Your task to perform on an android device: Open Wikipedia Image 0: 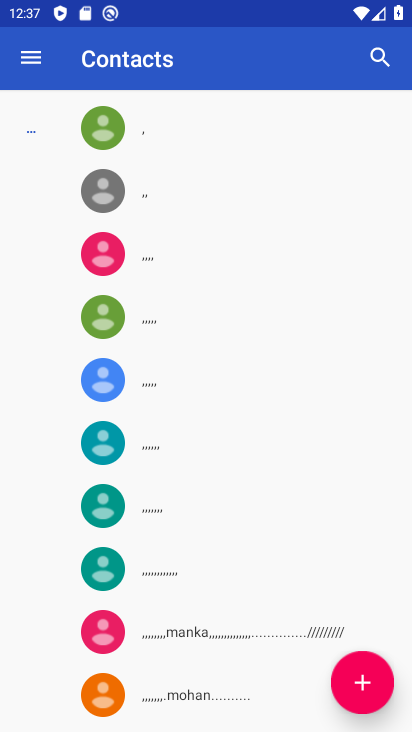
Step 0: press home button
Your task to perform on an android device: Open Wikipedia Image 1: 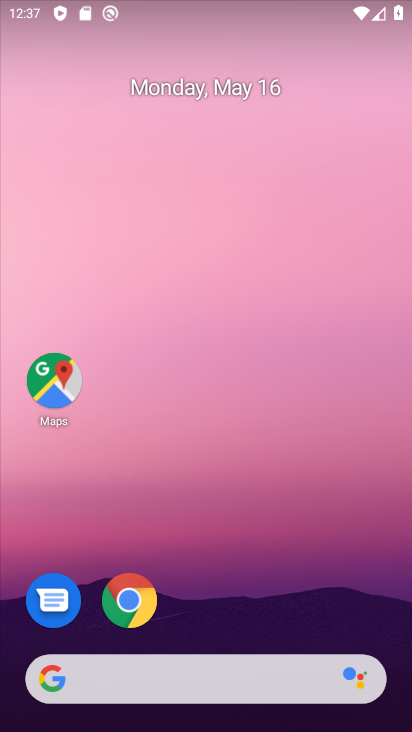
Step 1: drag from (376, 590) to (361, 134)
Your task to perform on an android device: Open Wikipedia Image 2: 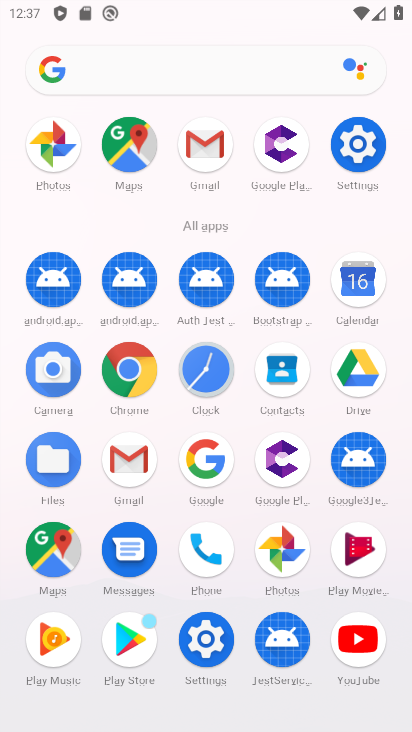
Step 2: click (125, 370)
Your task to perform on an android device: Open Wikipedia Image 3: 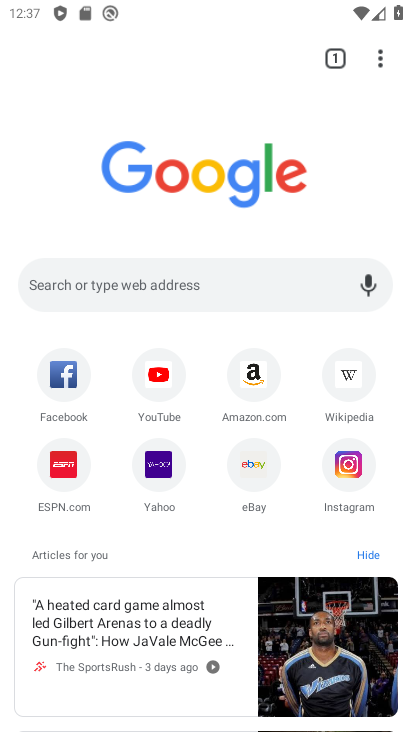
Step 3: click (342, 384)
Your task to perform on an android device: Open Wikipedia Image 4: 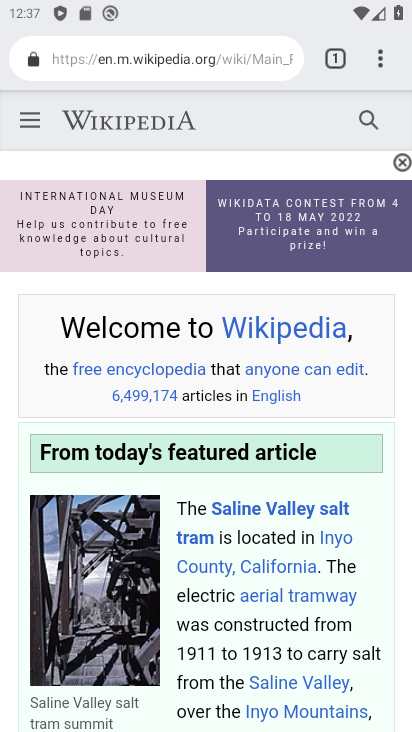
Step 4: task complete